Your task to perform on an android device: toggle sleep mode Image 0: 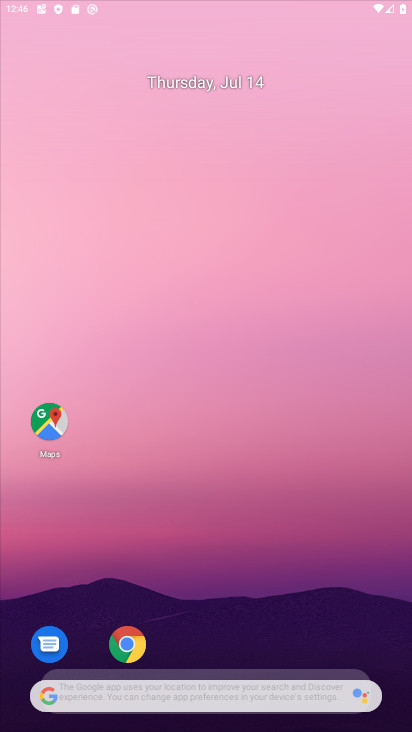
Step 0: drag from (275, 672) to (274, 191)
Your task to perform on an android device: toggle sleep mode Image 1: 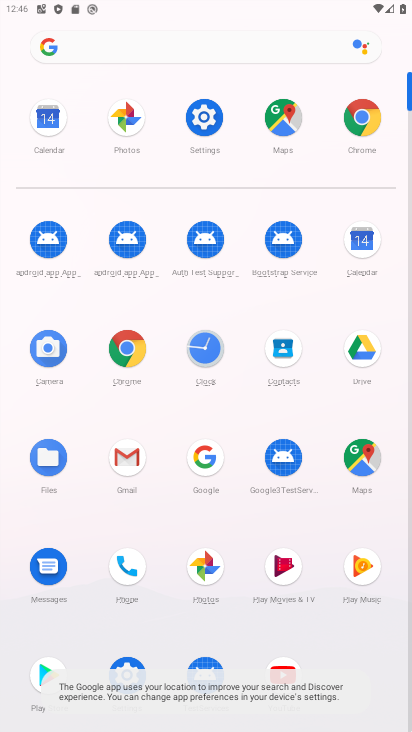
Step 1: click (125, 357)
Your task to perform on an android device: toggle sleep mode Image 2: 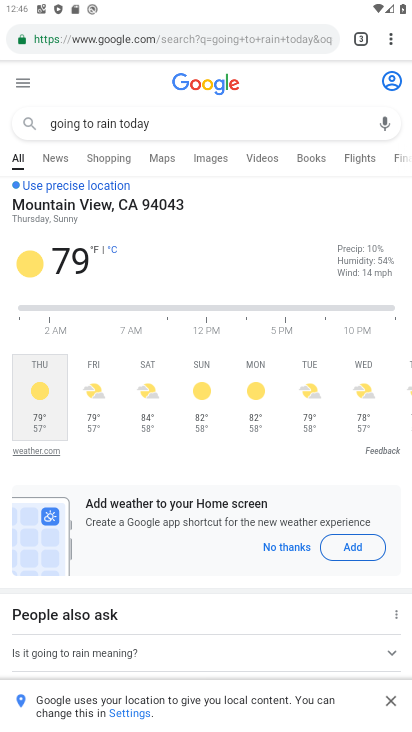
Step 2: click (172, 43)
Your task to perform on an android device: toggle sleep mode Image 3: 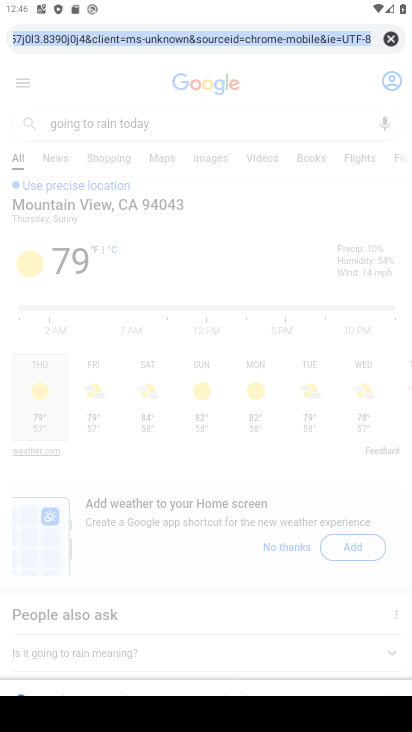
Step 3: type "cnn.com"
Your task to perform on an android device: toggle sleep mode Image 4: 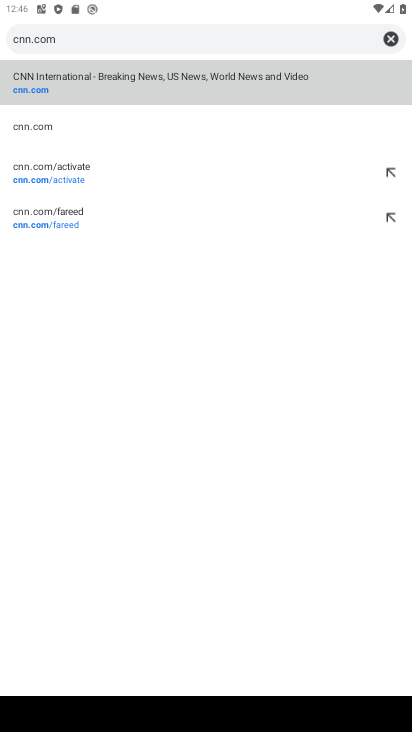
Step 4: click (312, 77)
Your task to perform on an android device: toggle sleep mode Image 5: 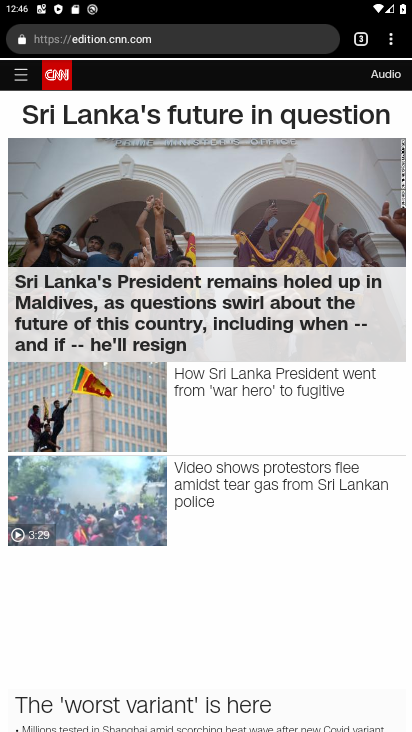
Step 5: task complete